Your task to perform on an android device: open app "LiveIn - Share Your Moment" (install if not already installed) and go to login screen Image 0: 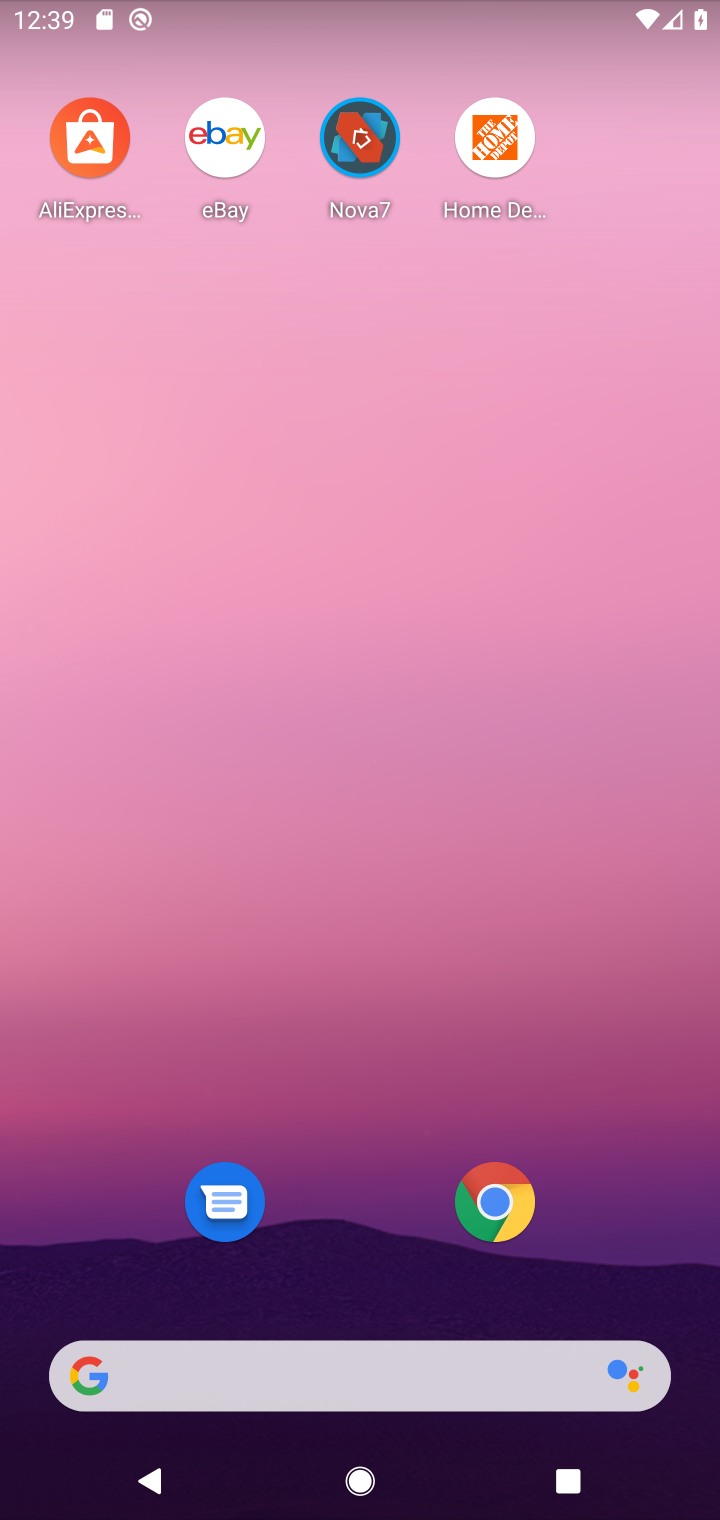
Step 0: drag from (341, 470) to (324, 374)
Your task to perform on an android device: open app "LiveIn - Share Your Moment" (install if not already installed) and go to login screen Image 1: 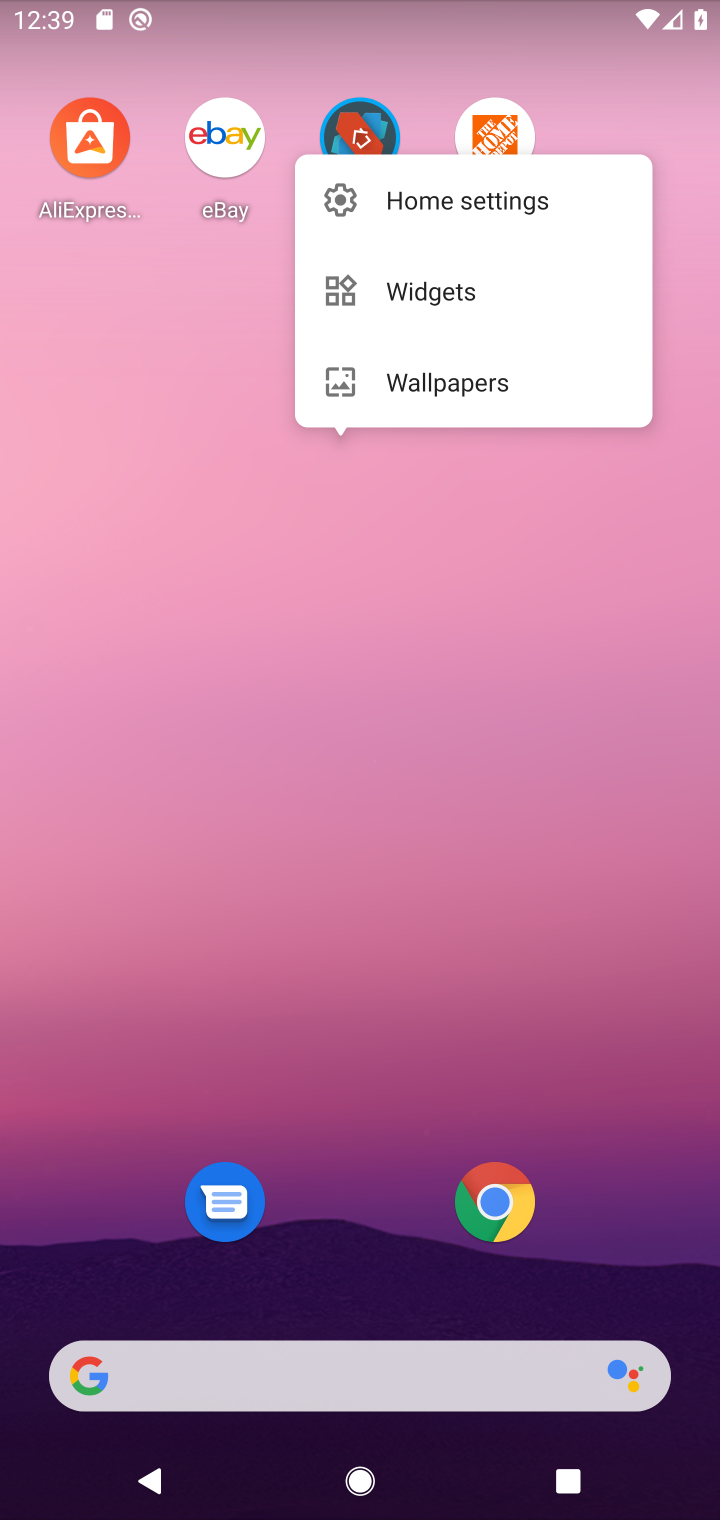
Step 1: drag from (364, 1253) to (342, 489)
Your task to perform on an android device: open app "LiveIn - Share Your Moment" (install if not already installed) and go to login screen Image 2: 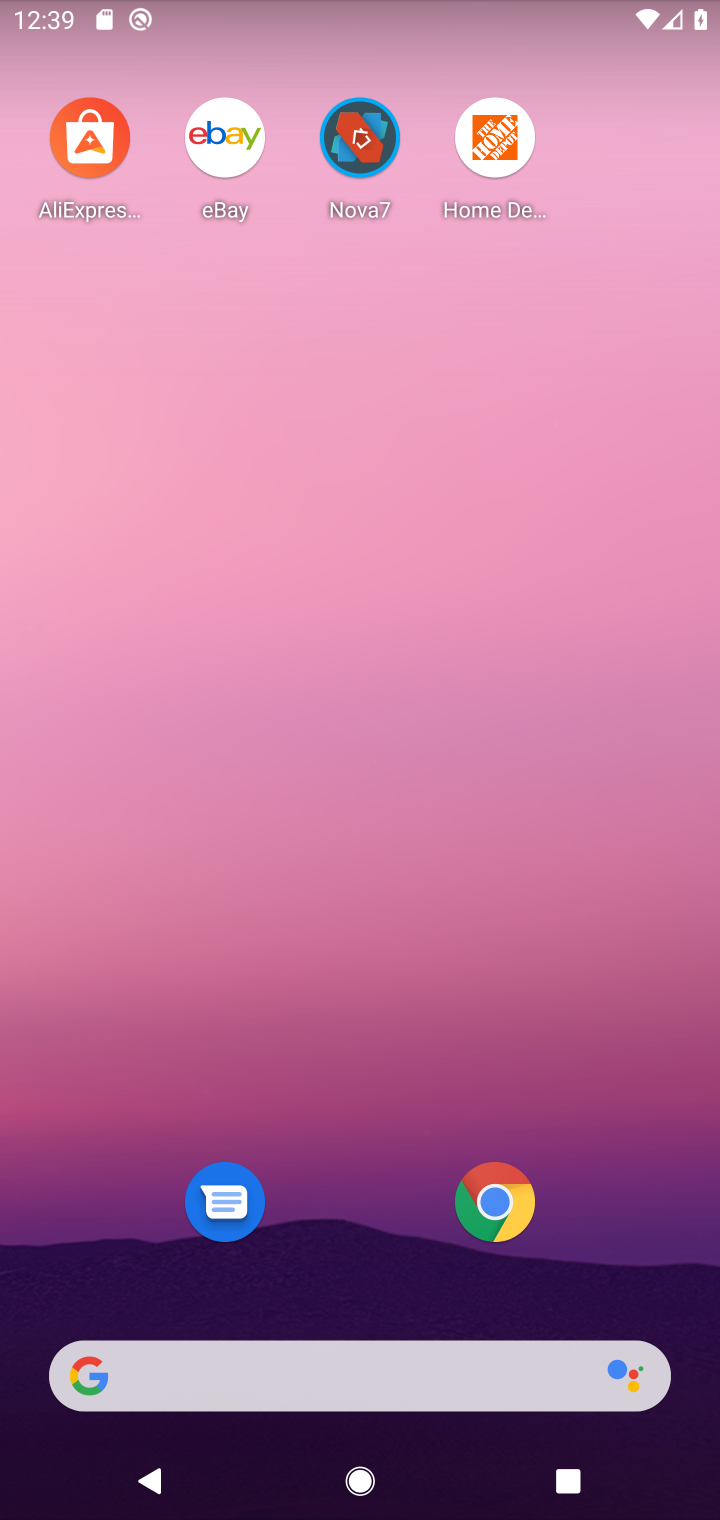
Step 2: drag from (348, 1355) to (272, 223)
Your task to perform on an android device: open app "LiveIn - Share Your Moment" (install if not already installed) and go to login screen Image 3: 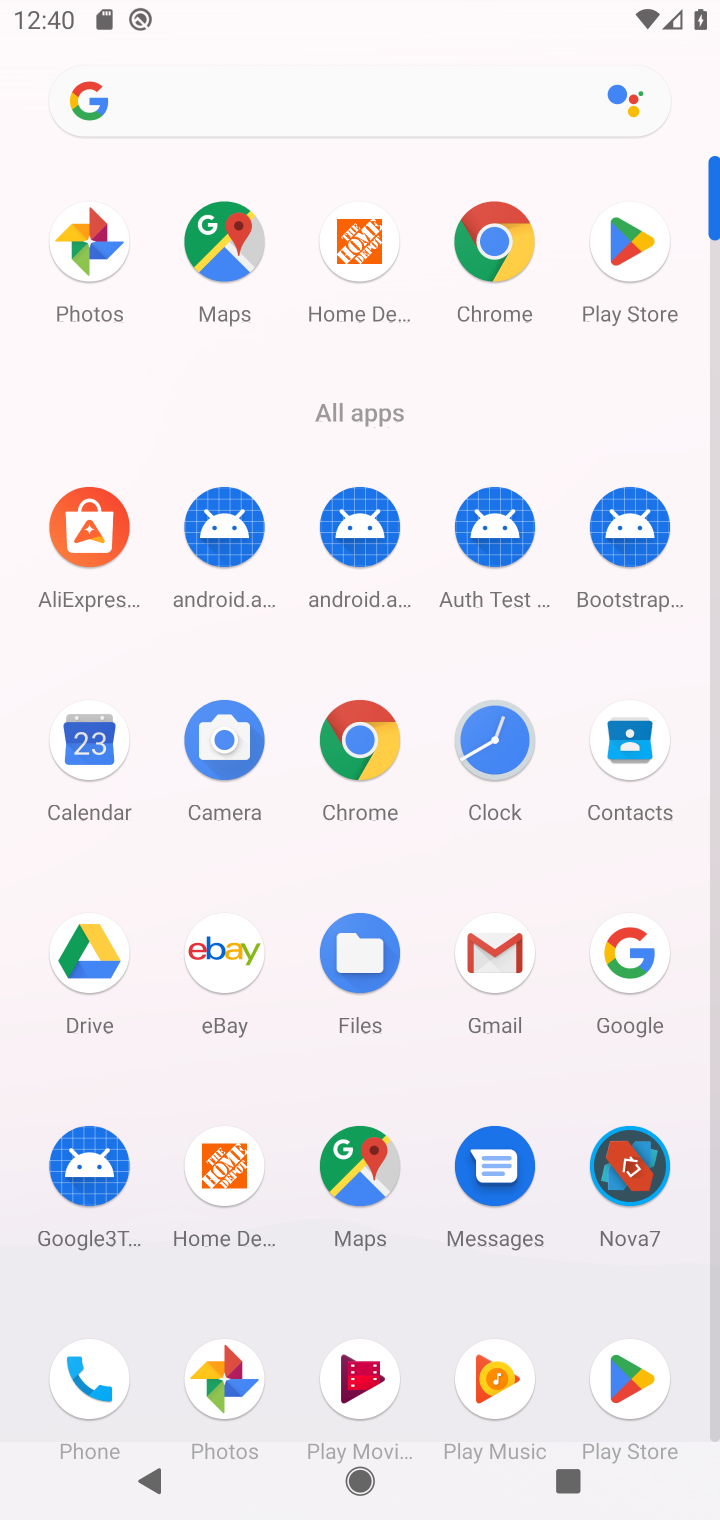
Step 3: click (643, 259)
Your task to perform on an android device: open app "LiveIn - Share Your Moment" (install if not already installed) and go to login screen Image 4: 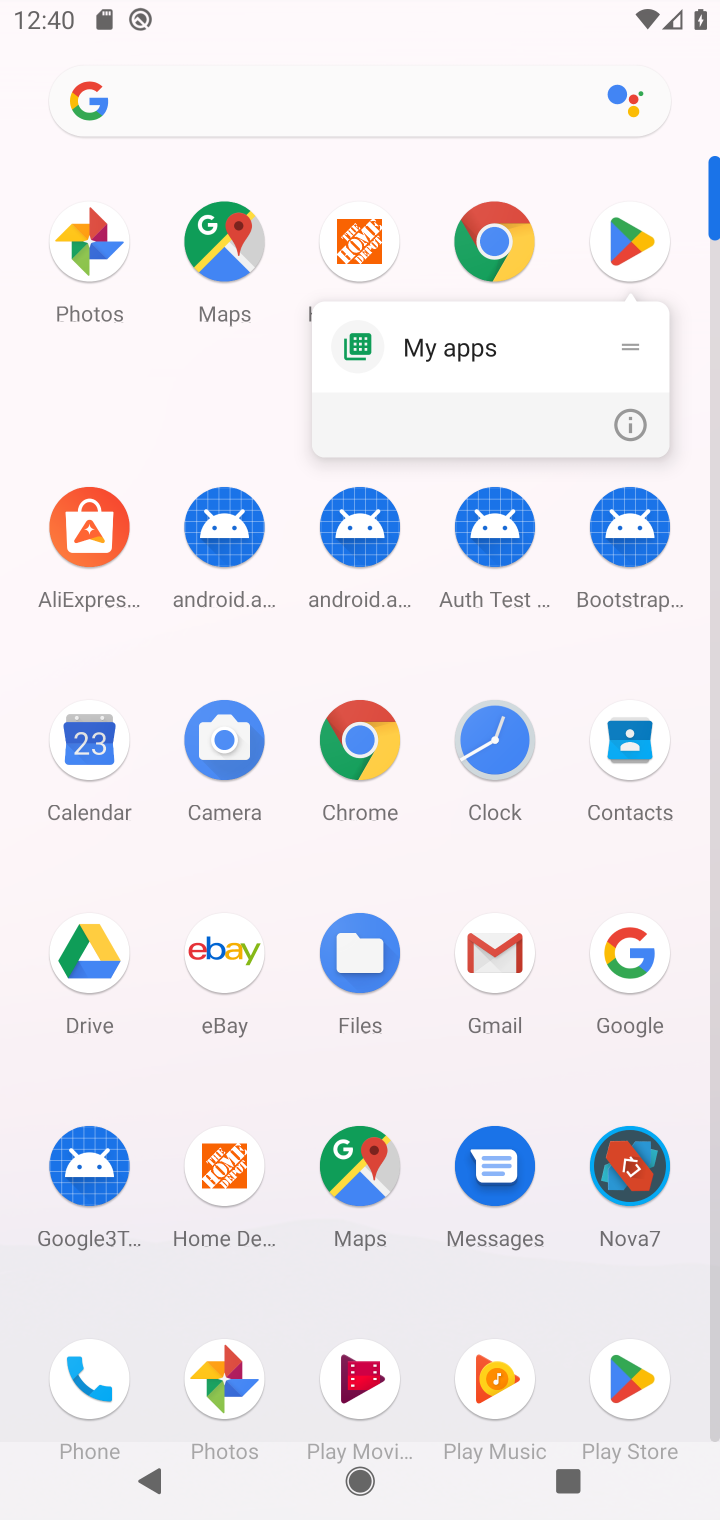
Step 4: click (632, 269)
Your task to perform on an android device: open app "LiveIn - Share Your Moment" (install if not already installed) and go to login screen Image 5: 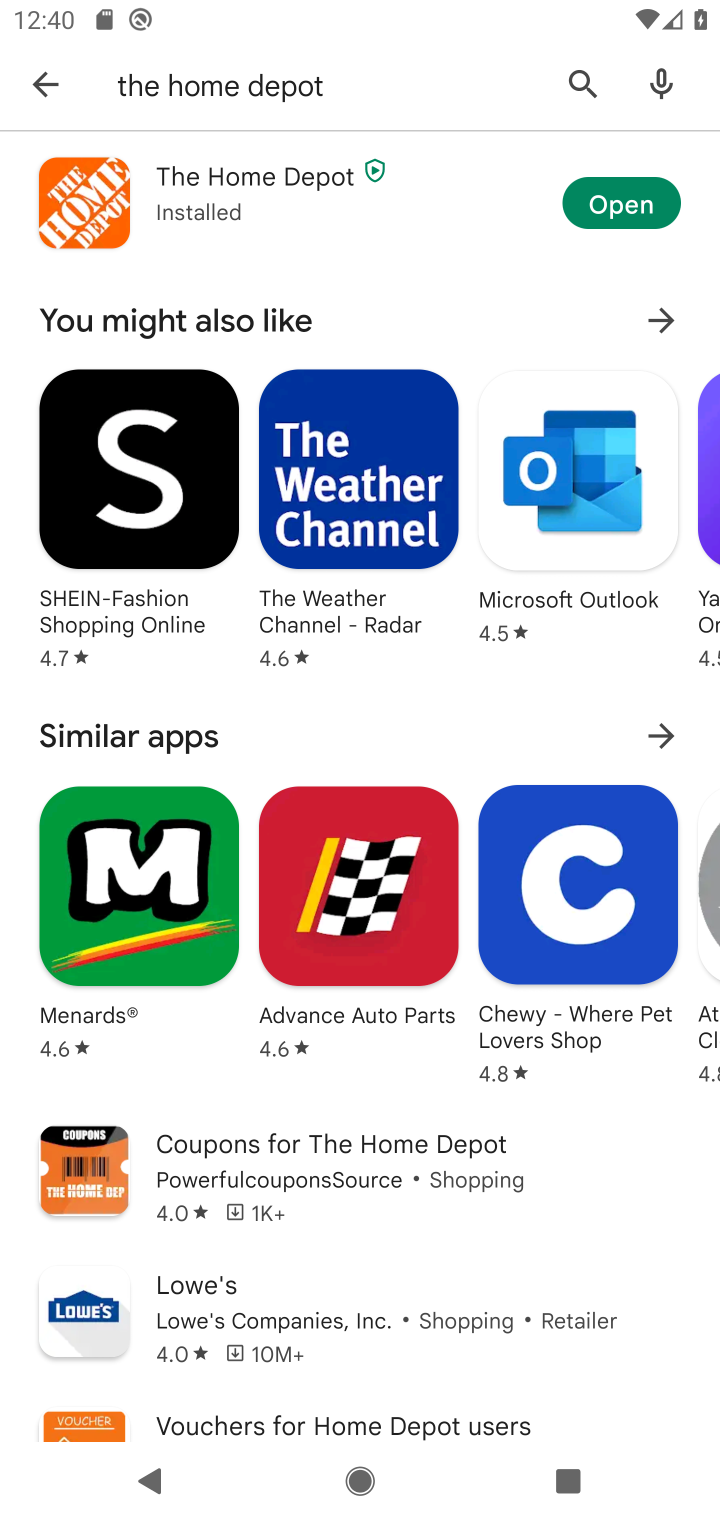
Step 5: click (581, 92)
Your task to perform on an android device: open app "LiveIn - Share Your Moment" (install if not already installed) and go to login screen Image 6: 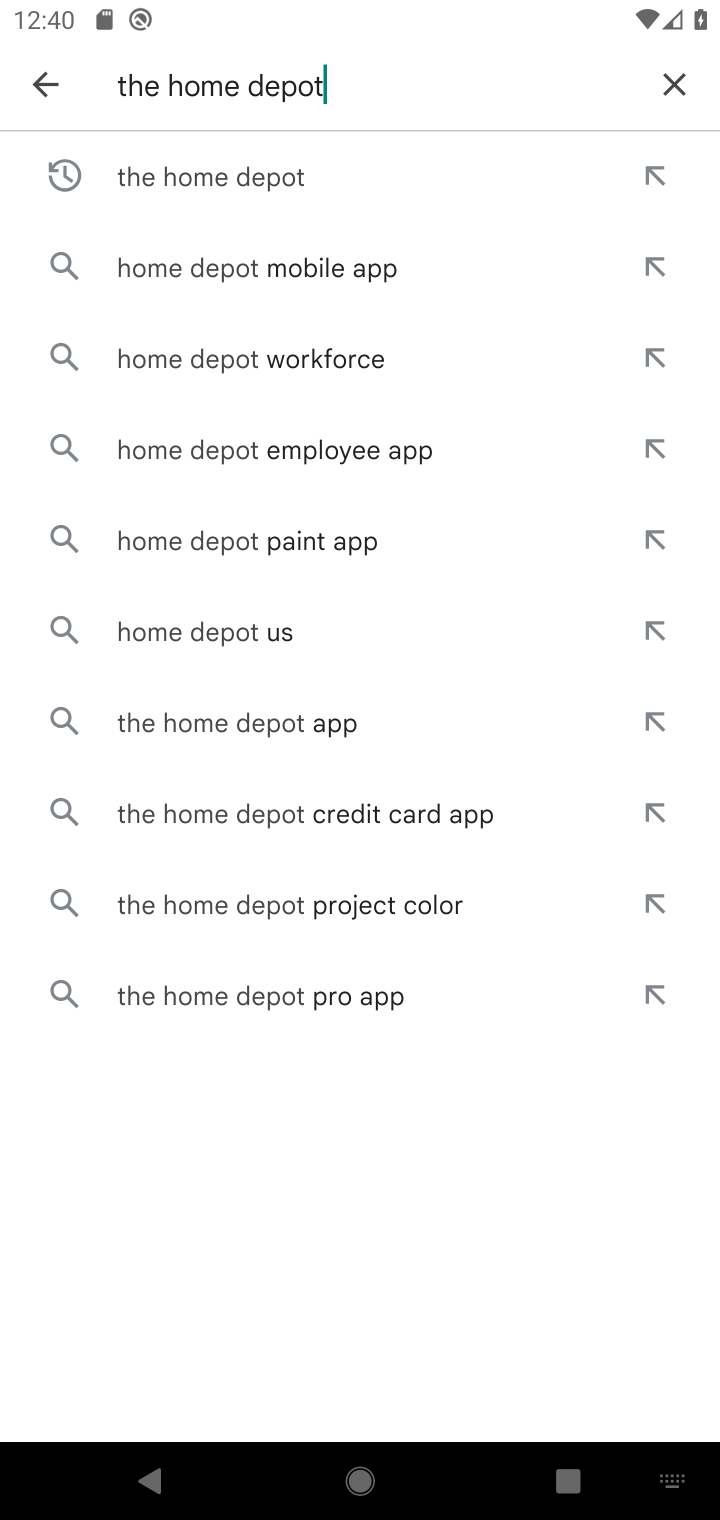
Step 6: click (675, 88)
Your task to perform on an android device: open app "LiveIn - Share Your Moment" (install if not already installed) and go to login screen Image 7: 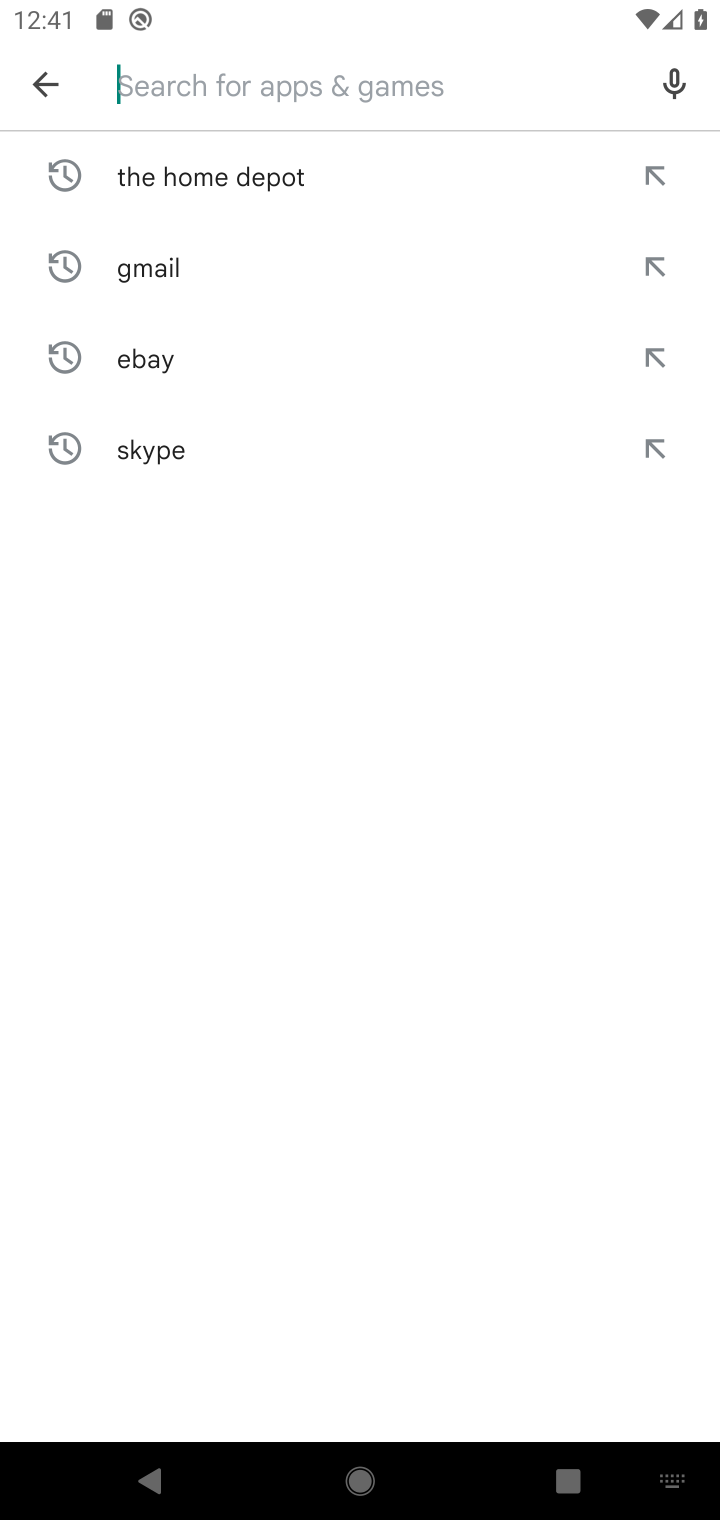
Step 7: type "livein"
Your task to perform on an android device: open app "LiveIn - Share Your Moment" (install if not already installed) and go to login screen Image 8: 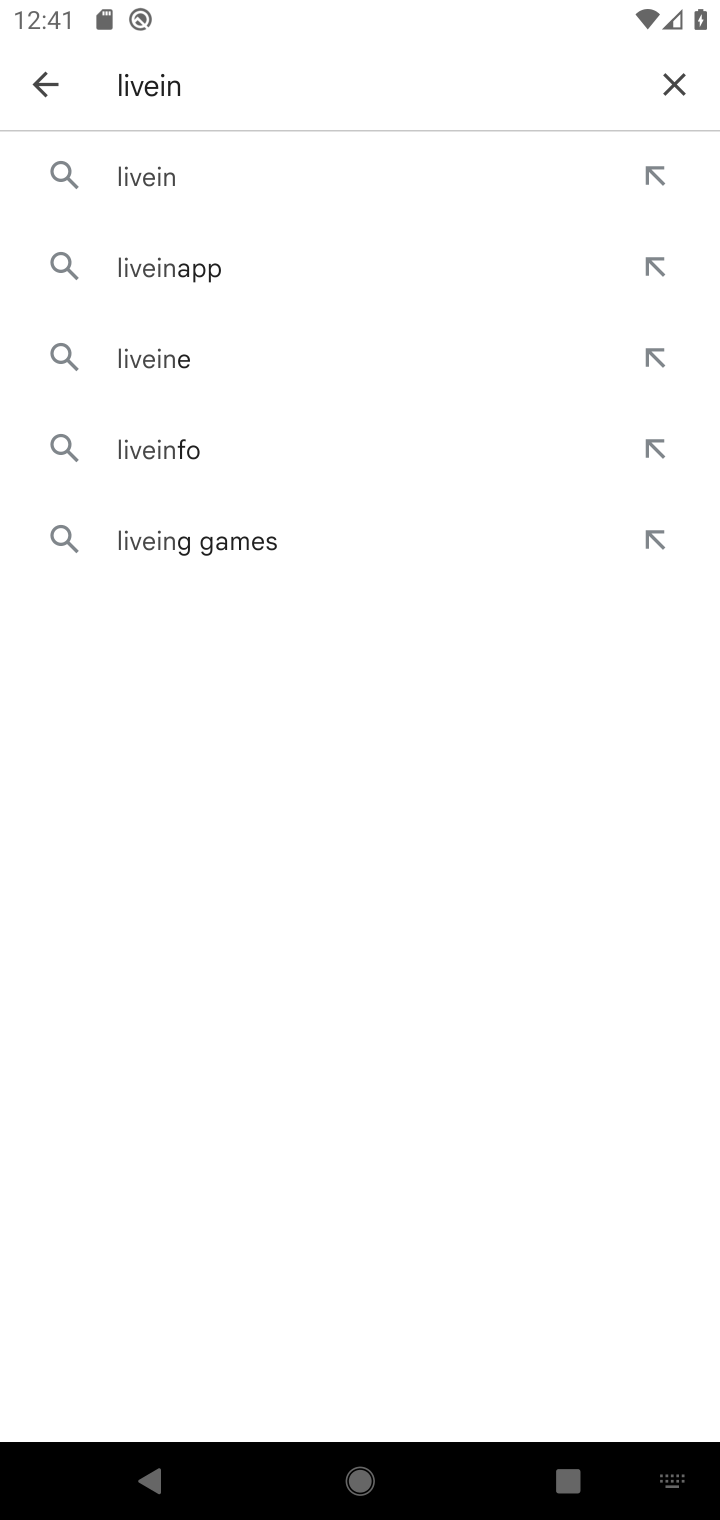
Step 8: click (189, 163)
Your task to perform on an android device: open app "LiveIn - Share Your Moment" (install if not already installed) and go to login screen Image 9: 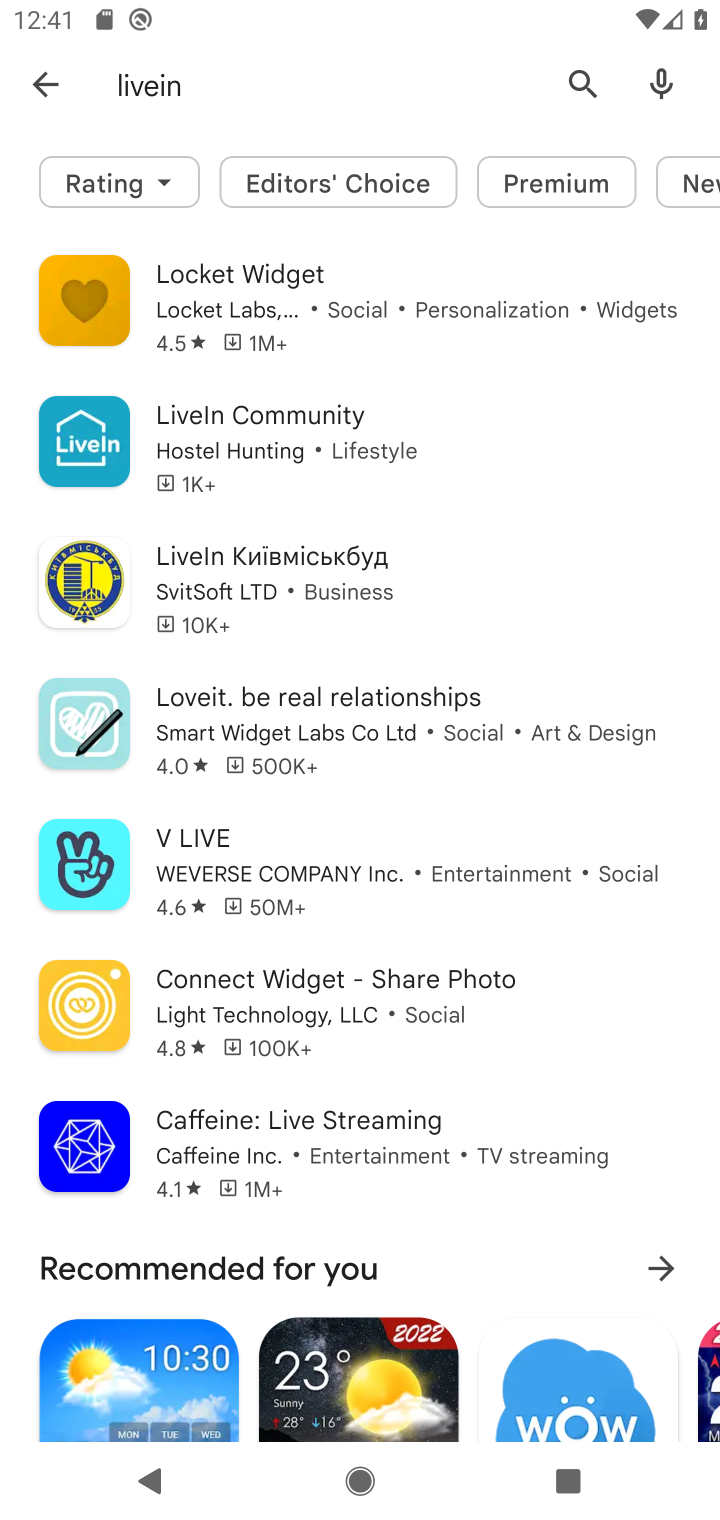
Step 9: task complete